Your task to perform on an android device: Play the last video I watched on Youtube Image 0: 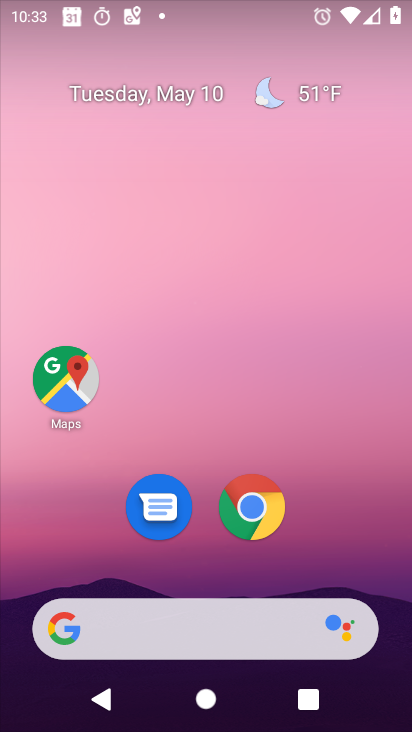
Step 0: drag from (191, 571) to (187, 37)
Your task to perform on an android device: Play the last video I watched on Youtube Image 1: 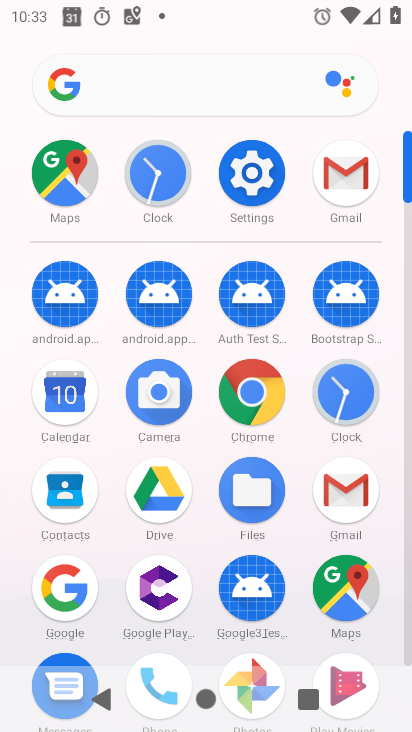
Step 1: drag from (196, 641) to (199, 120)
Your task to perform on an android device: Play the last video I watched on Youtube Image 2: 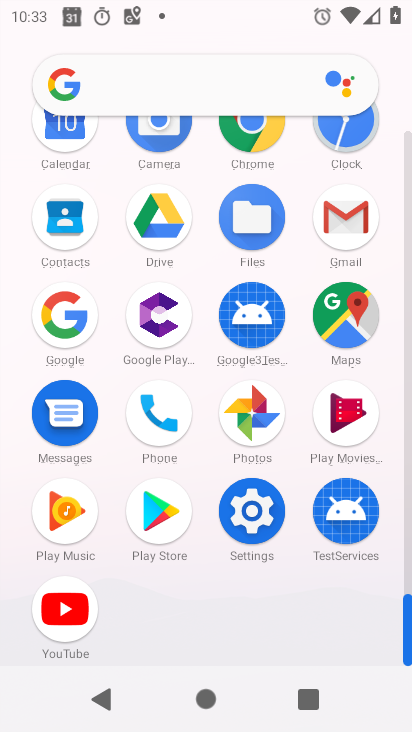
Step 2: click (75, 619)
Your task to perform on an android device: Play the last video I watched on Youtube Image 3: 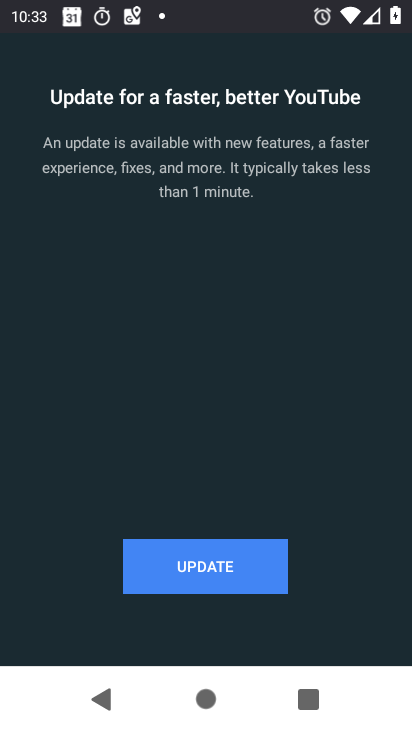
Step 3: click (253, 579)
Your task to perform on an android device: Play the last video I watched on Youtube Image 4: 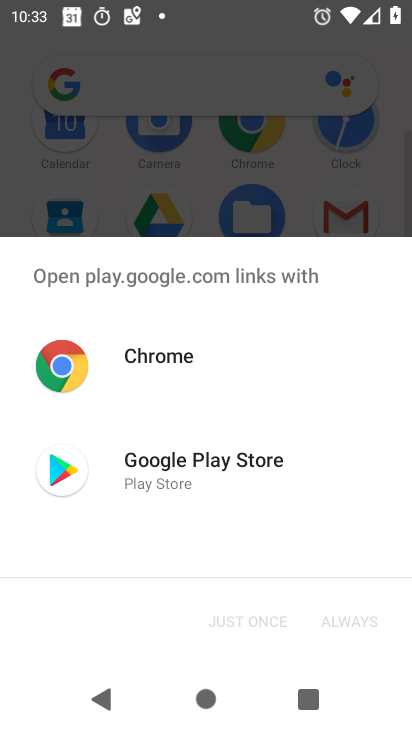
Step 4: click (194, 454)
Your task to perform on an android device: Play the last video I watched on Youtube Image 5: 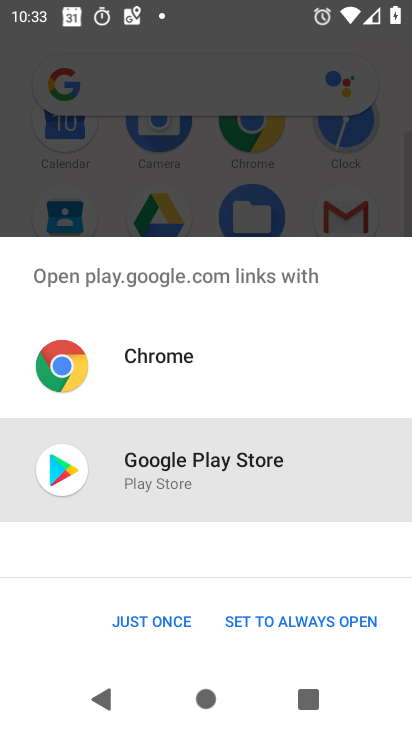
Step 5: click (194, 624)
Your task to perform on an android device: Play the last video I watched on Youtube Image 6: 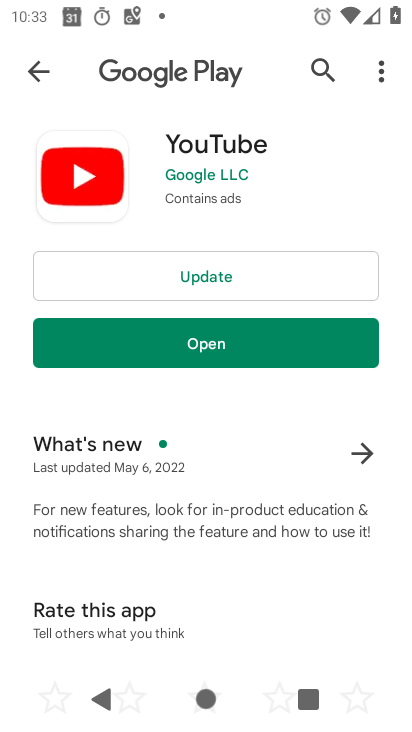
Step 6: drag from (246, 621) to (217, 139)
Your task to perform on an android device: Play the last video I watched on Youtube Image 7: 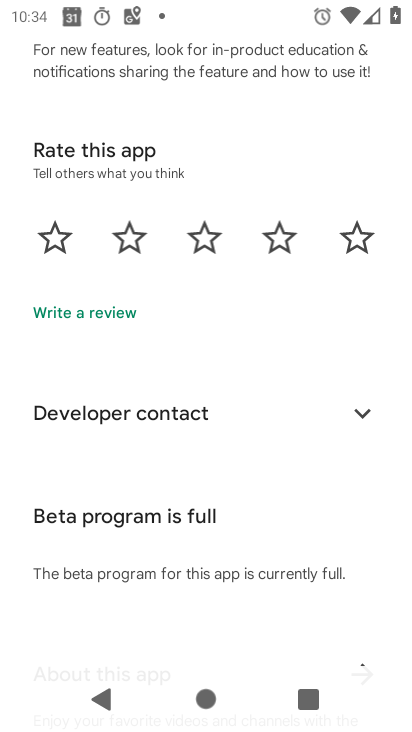
Step 7: drag from (276, 276) to (267, 667)
Your task to perform on an android device: Play the last video I watched on Youtube Image 8: 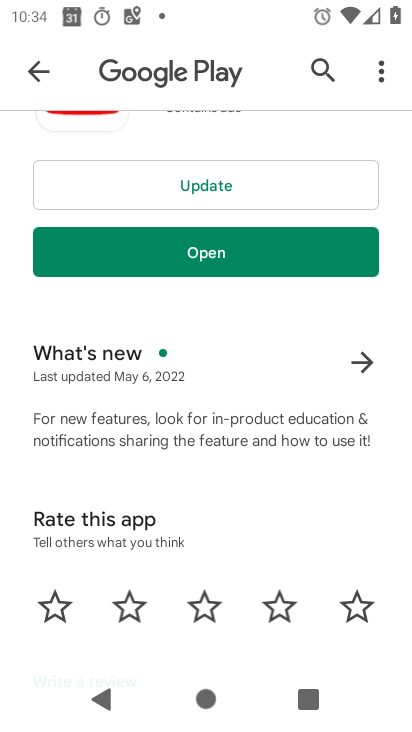
Step 8: click (218, 190)
Your task to perform on an android device: Play the last video I watched on Youtube Image 9: 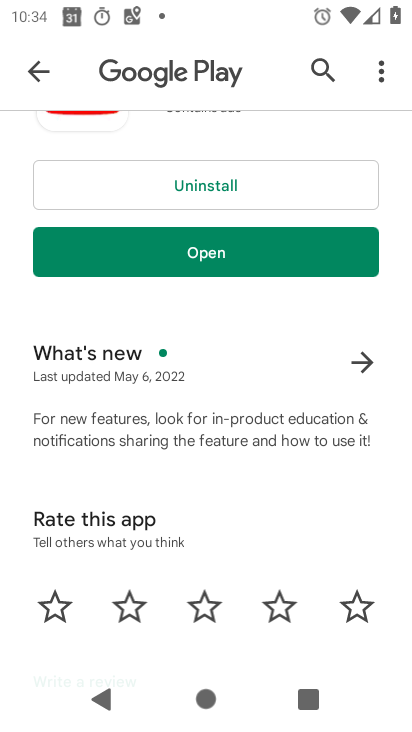
Step 9: click (192, 236)
Your task to perform on an android device: Play the last video I watched on Youtube Image 10: 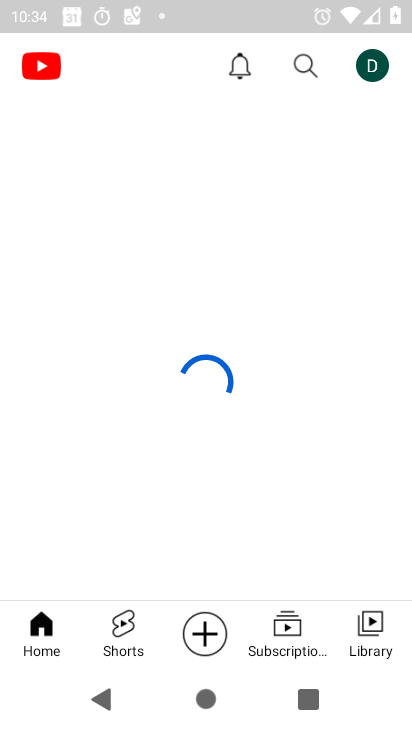
Step 10: click (357, 633)
Your task to perform on an android device: Play the last video I watched on Youtube Image 11: 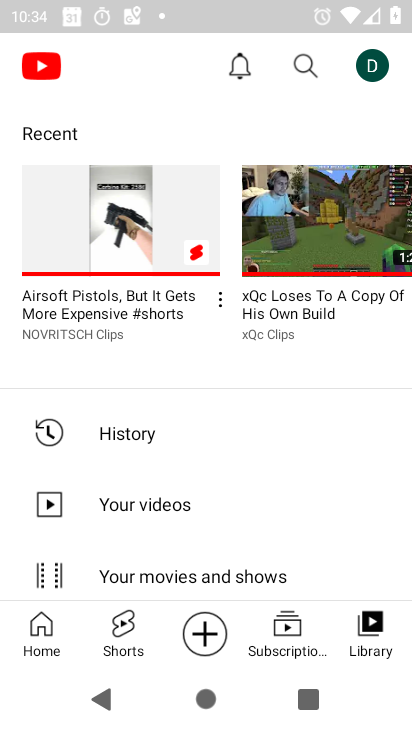
Step 11: click (117, 200)
Your task to perform on an android device: Play the last video I watched on Youtube Image 12: 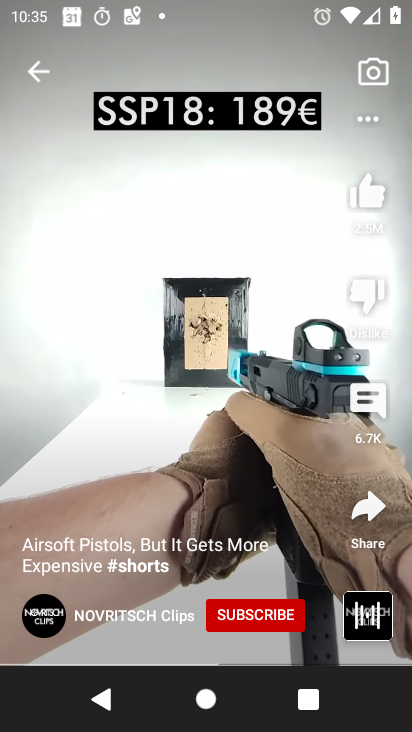
Step 12: task complete